Your task to perform on an android device: Open Youtube and go to the subscriptions tab Image 0: 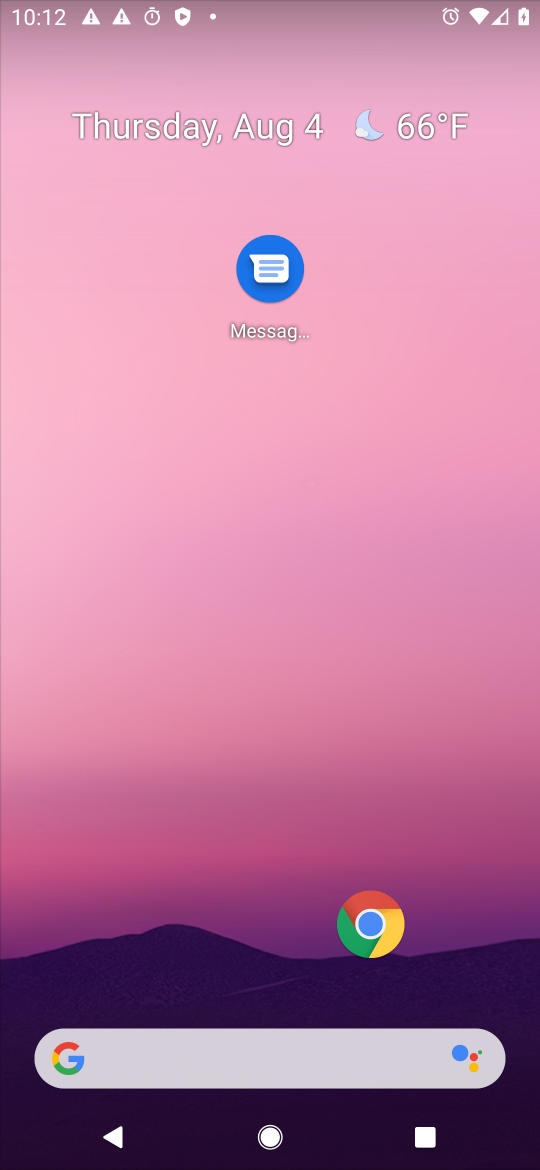
Step 0: drag from (242, 836) to (252, 704)
Your task to perform on an android device: Open Youtube and go to the subscriptions tab Image 1: 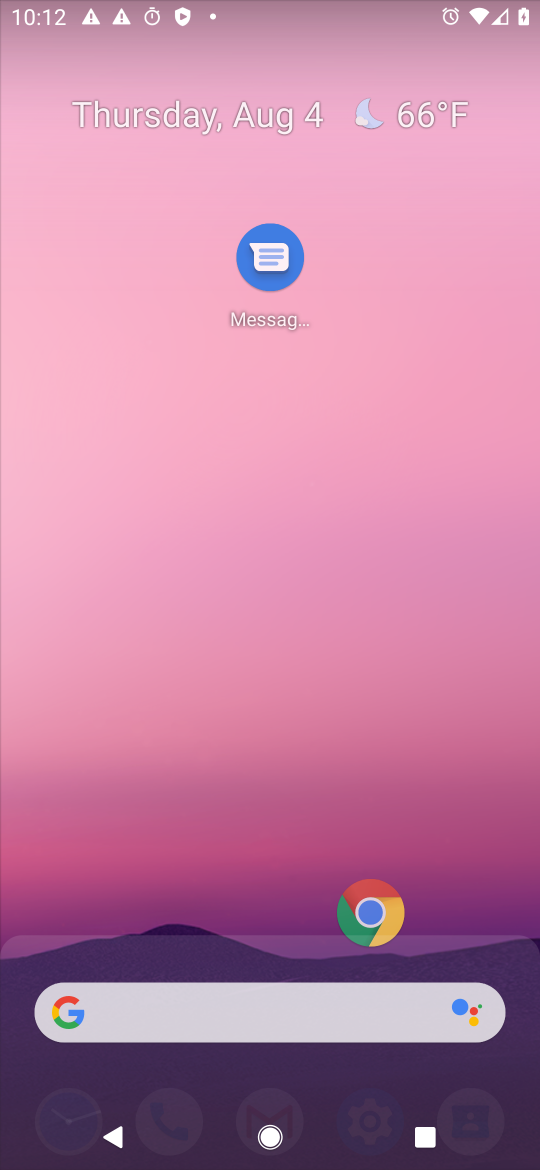
Step 1: drag from (281, 468) to (299, 222)
Your task to perform on an android device: Open Youtube and go to the subscriptions tab Image 2: 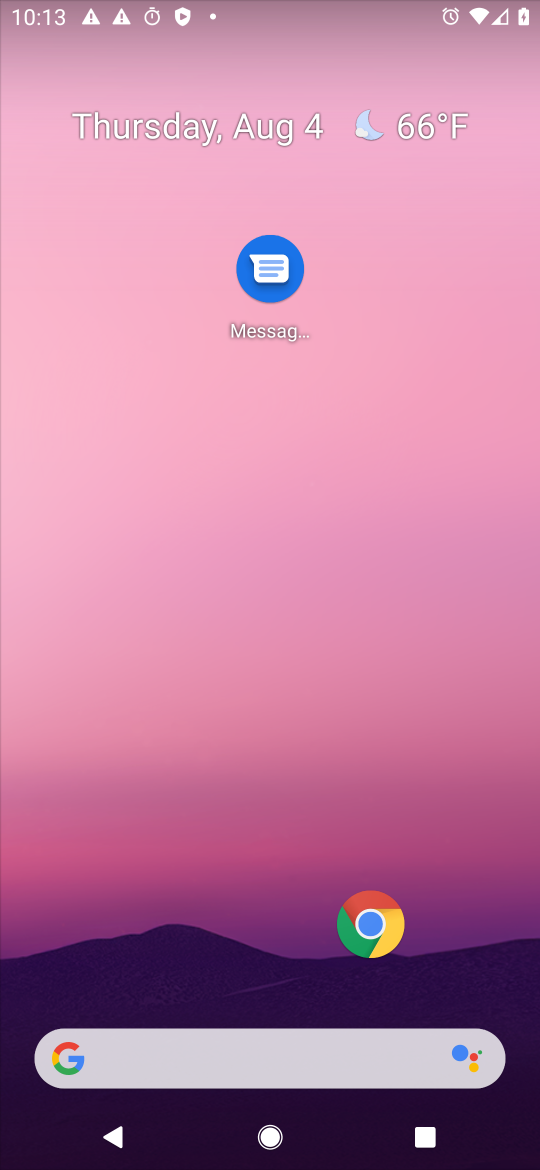
Step 2: drag from (300, 961) to (367, 171)
Your task to perform on an android device: Open Youtube and go to the subscriptions tab Image 3: 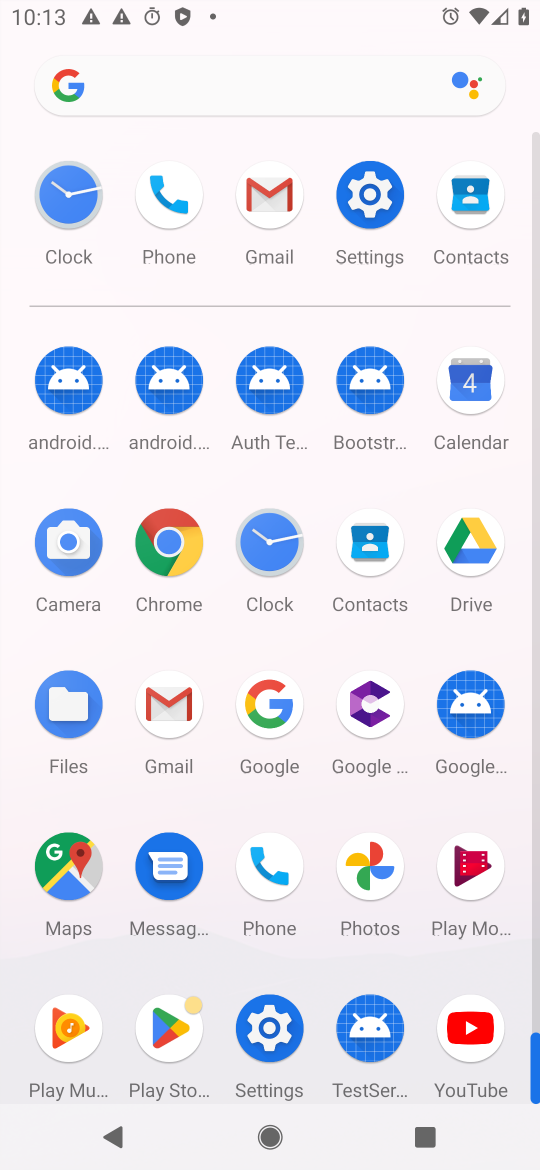
Step 3: click (462, 1014)
Your task to perform on an android device: Open Youtube and go to the subscriptions tab Image 4: 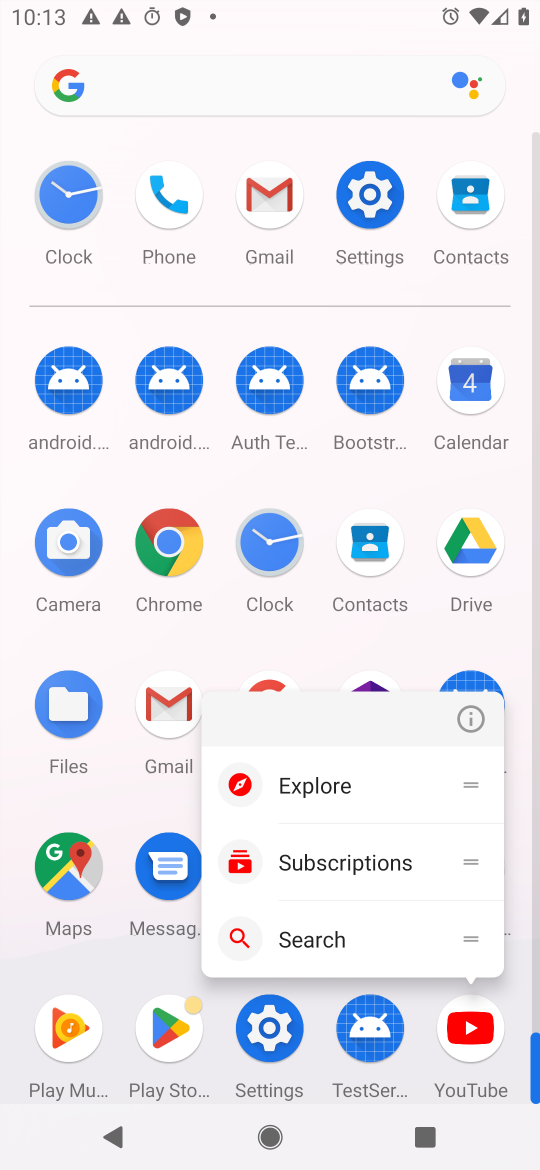
Step 4: click (477, 709)
Your task to perform on an android device: Open Youtube and go to the subscriptions tab Image 5: 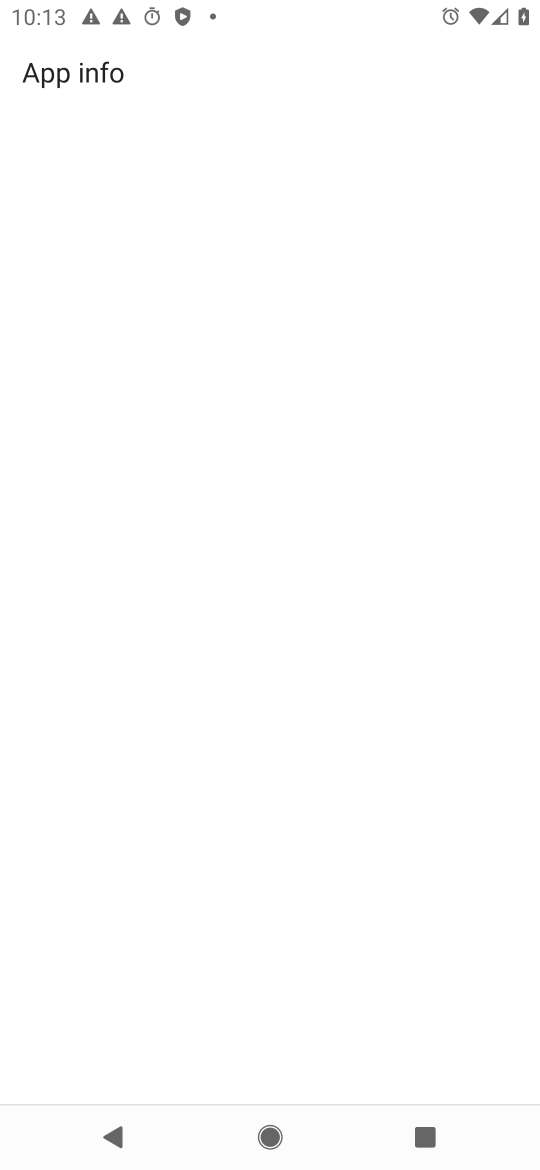
Step 5: click (477, 709)
Your task to perform on an android device: Open Youtube and go to the subscriptions tab Image 6: 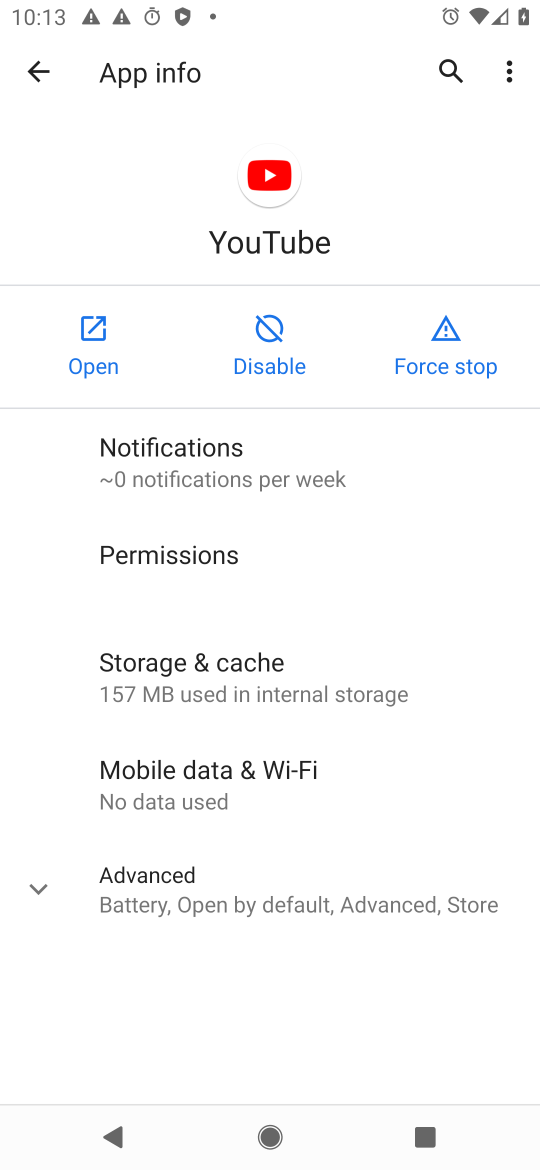
Step 6: drag from (367, 575) to (379, 186)
Your task to perform on an android device: Open Youtube and go to the subscriptions tab Image 7: 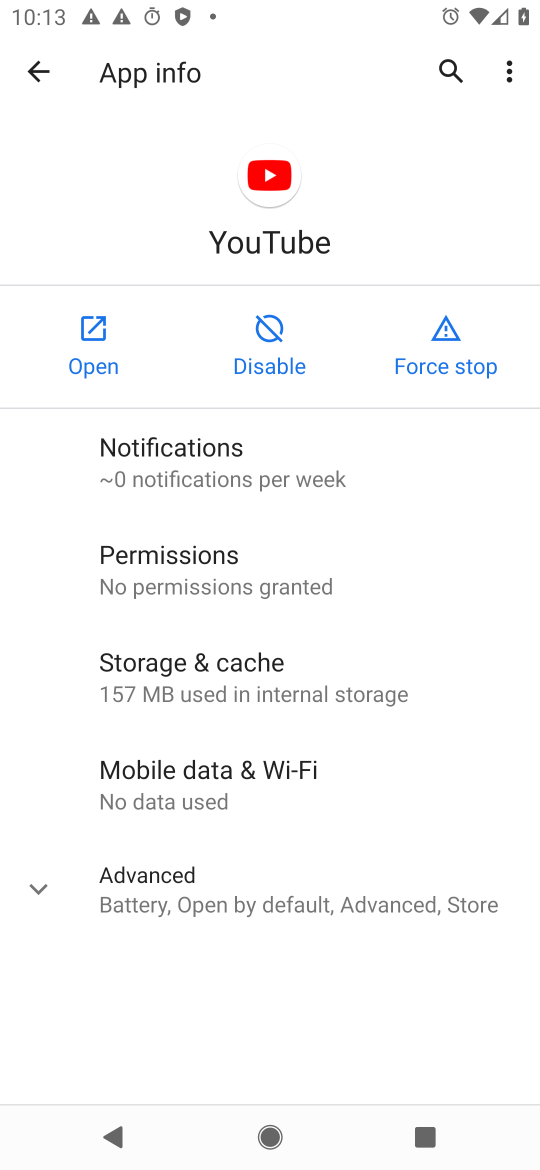
Step 7: click (104, 319)
Your task to perform on an android device: Open Youtube and go to the subscriptions tab Image 8: 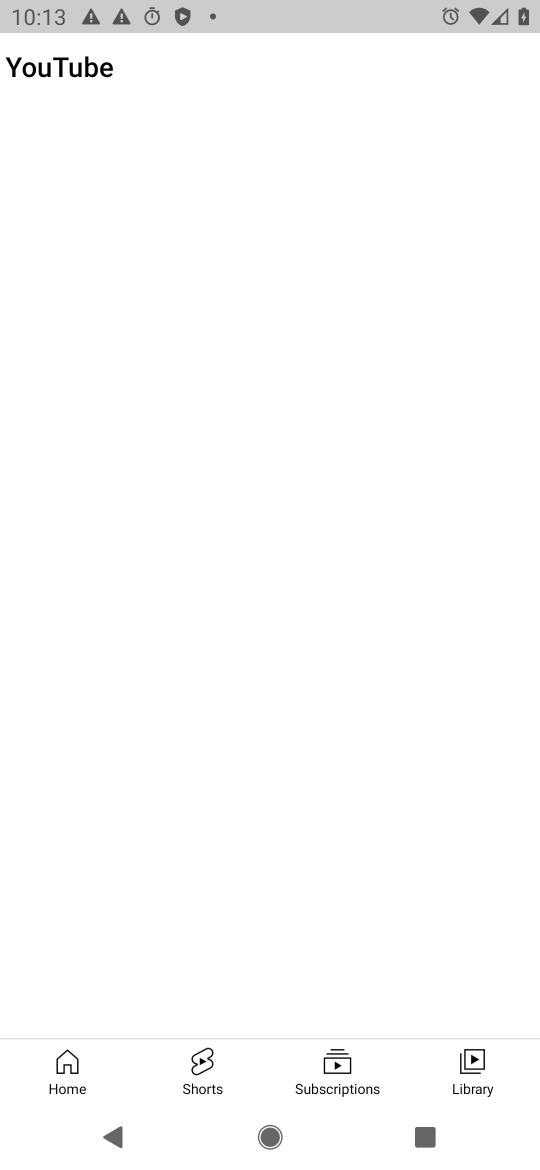
Step 8: drag from (217, 838) to (223, 677)
Your task to perform on an android device: Open Youtube and go to the subscriptions tab Image 9: 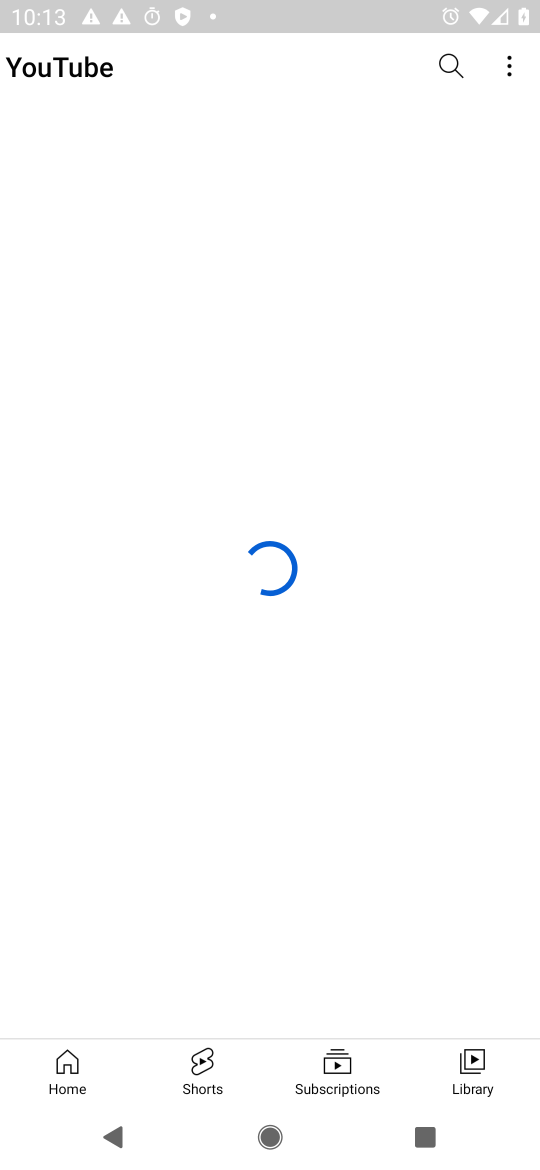
Step 9: click (342, 1052)
Your task to perform on an android device: Open Youtube and go to the subscriptions tab Image 10: 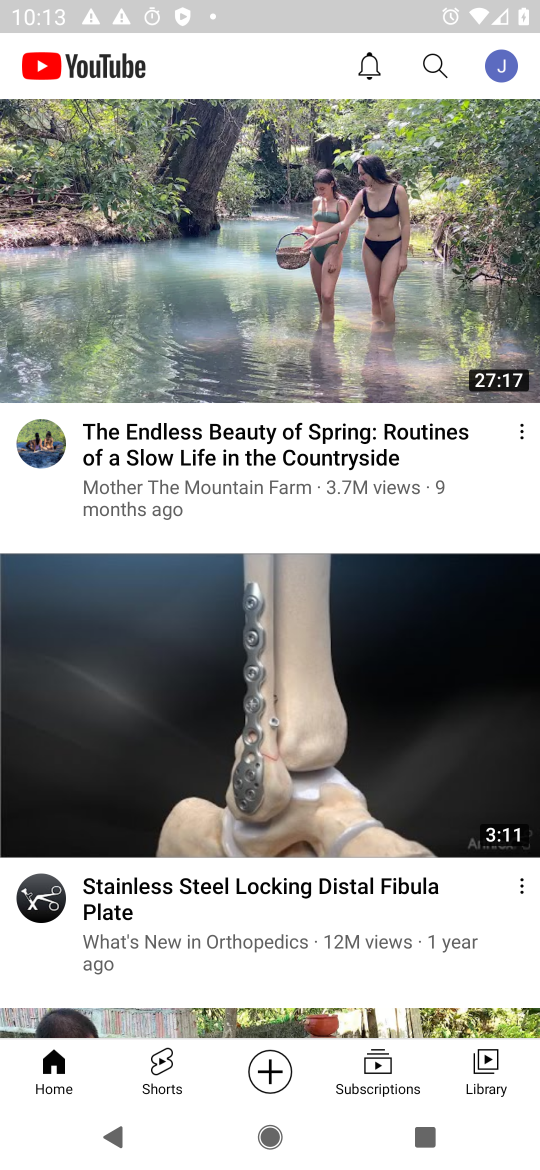
Step 10: click (378, 1061)
Your task to perform on an android device: Open Youtube and go to the subscriptions tab Image 11: 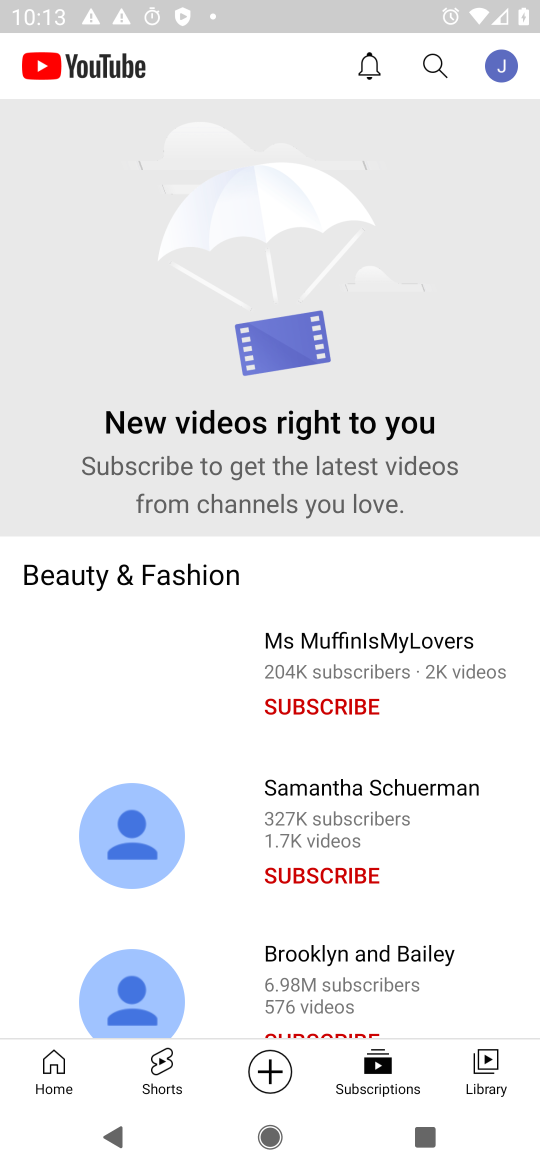
Step 11: task complete